Your task to perform on an android device: turn on javascript in the chrome app Image 0: 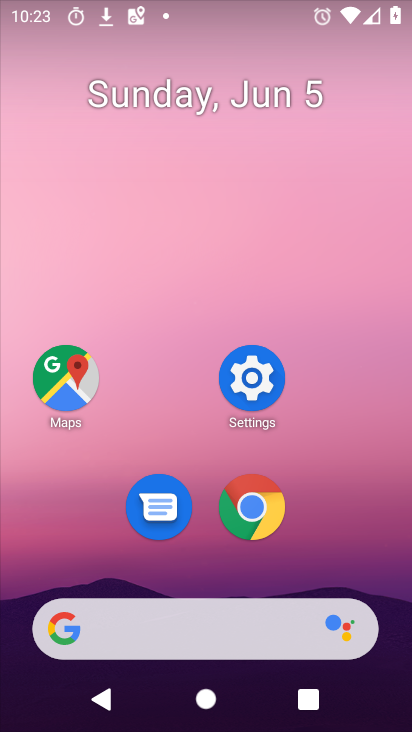
Step 0: drag from (226, 659) to (166, 184)
Your task to perform on an android device: turn on javascript in the chrome app Image 1: 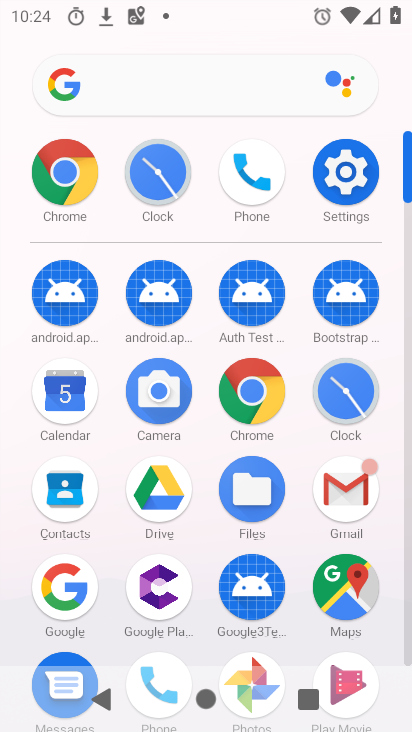
Step 1: click (77, 189)
Your task to perform on an android device: turn on javascript in the chrome app Image 2: 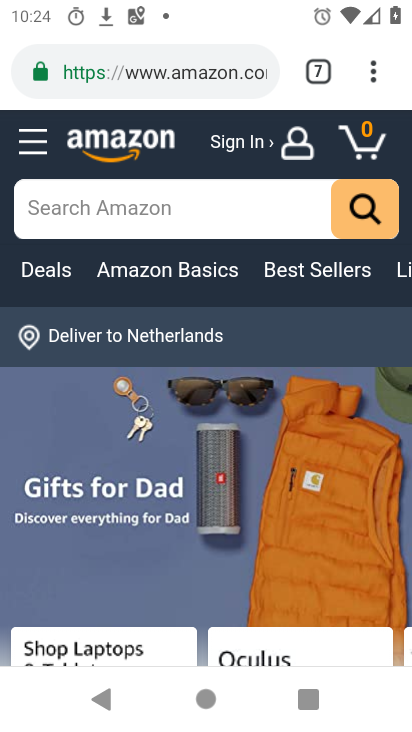
Step 2: click (377, 78)
Your task to perform on an android device: turn on javascript in the chrome app Image 3: 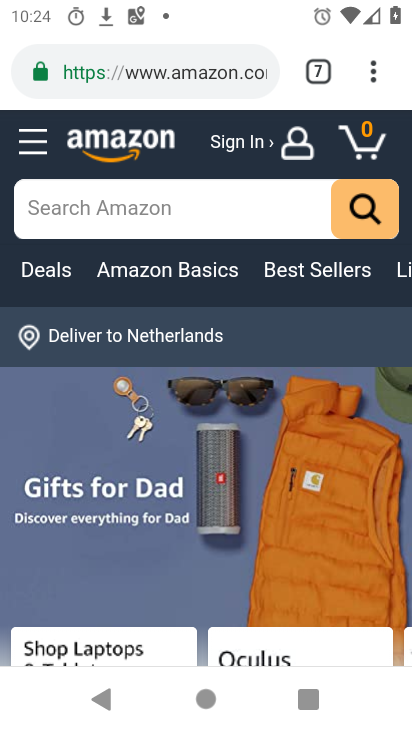
Step 3: click (359, 82)
Your task to perform on an android device: turn on javascript in the chrome app Image 4: 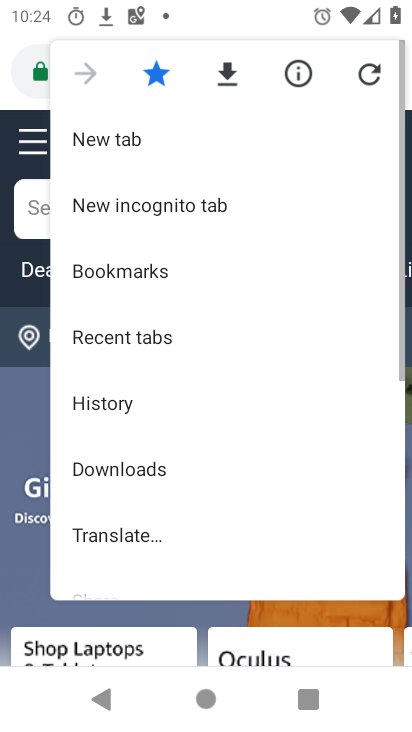
Step 4: drag from (200, 540) to (209, 253)
Your task to perform on an android device: turn on javascript in the chrome app Image 5: 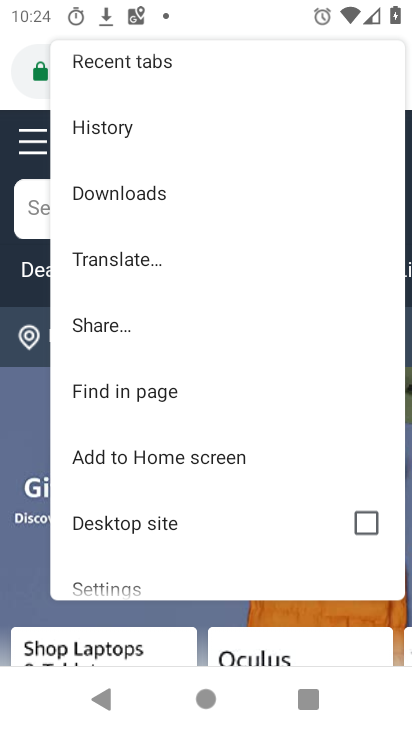
Step 5: click (117, 582)
Your task to perform on an android device: turn on javascript in the chrome app Image 6: 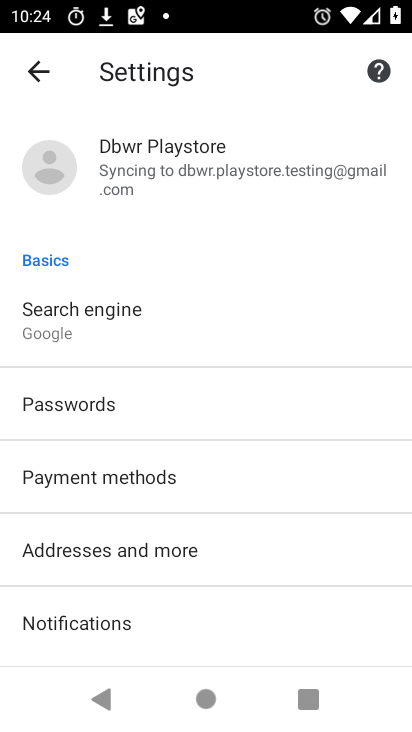
Step 6: drag from (167, 587) to (159, 374)
Your task to perform on an android device: turn on javascript in the chrome app Image 7: 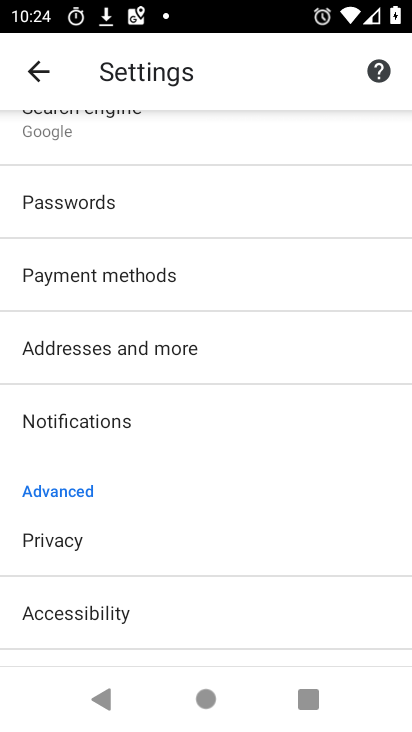
Step 7: drag from (119, 604) to (158, 362)
Your task to perform on an android device: turn on javascript in the chrome app Image 8: 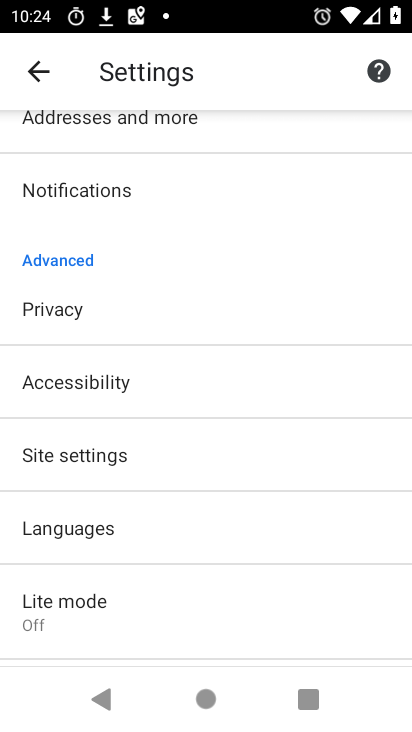
Step 8: click (90, 452)
Your task to perform on an android device: turn on javascript in the chrome app Image 9: 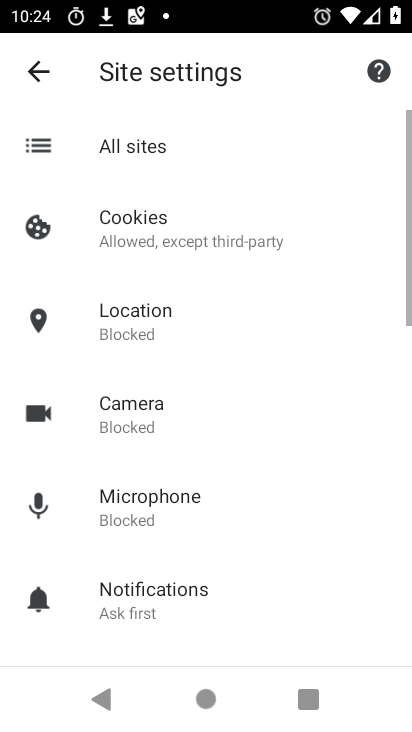
Step 9: drag from (144, 617) to (145, 409)
Your task to perform on an android device: turn on javascript in the chrome app Image 10: 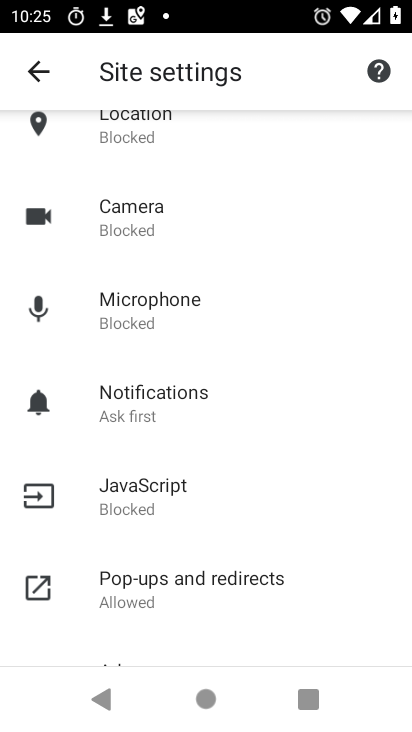
Step 10: click (172, 500)
Your task to perform on an android device: turn on javascript in the chrome app Image 11: 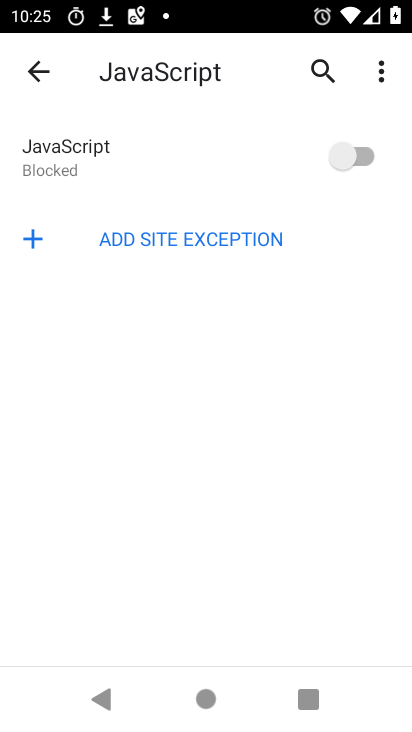
Step 11: click (314, 168)
Your task to perform on an android device: turn on javascript in the chrome app Image 12: 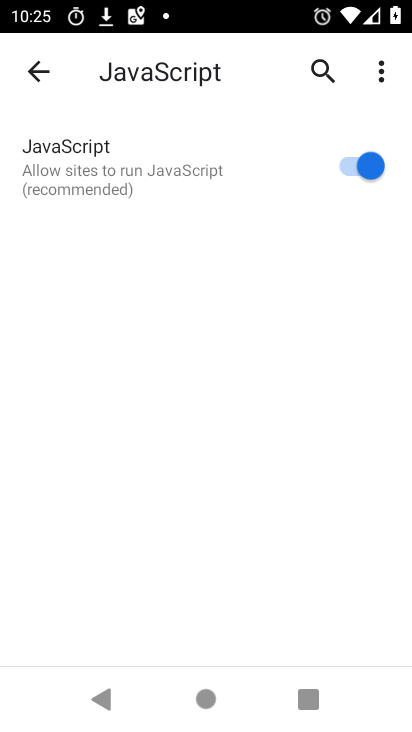
Step 12: task complete